Your task to perform on an android device: What's the weather going to be tomorrow? Image 0: 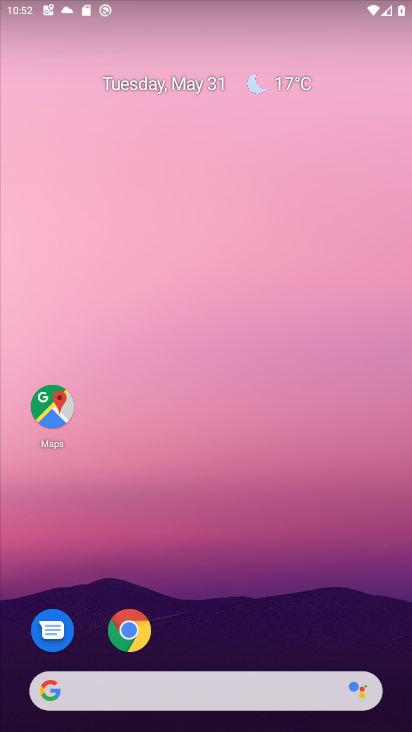
Step 0: click (300, 87)
Your task to perform on an android device: What's the weather going to be tomorrow? Image 1: 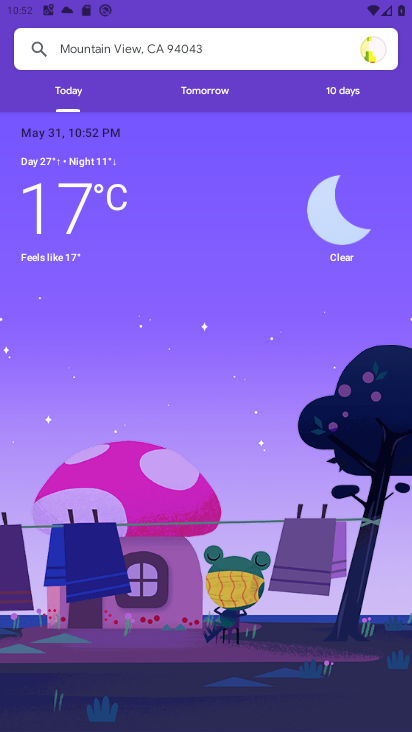
Step 1: click (186, 86)
Your task to perform on an android device: What's the weather going to be tomorrow? Image 2: 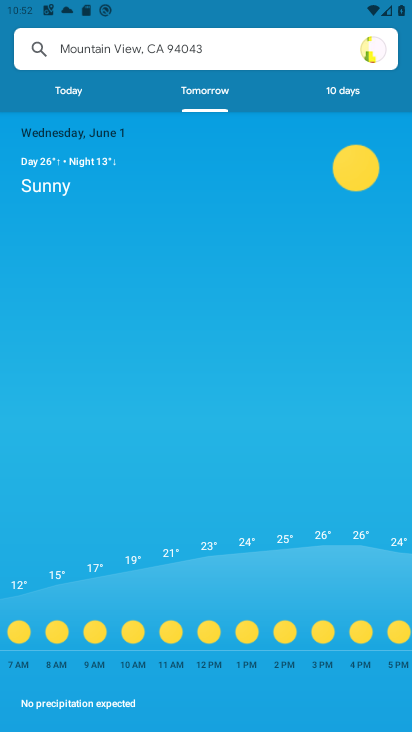
Step 2: task complete